Your task to perform on an android device: Search for Mexican restaurants on Maps Image 0: 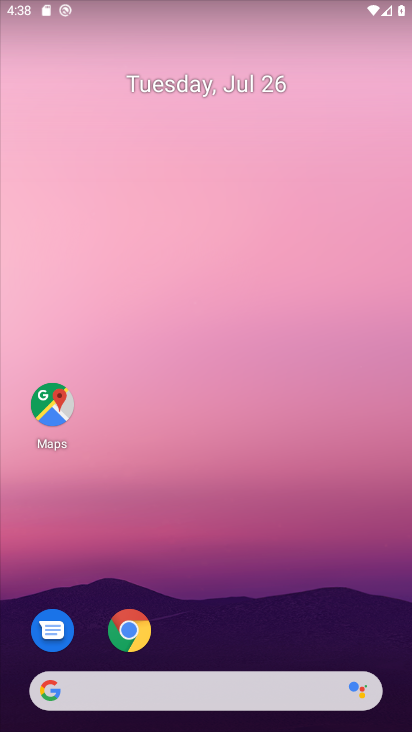
Step 0: click (54, 401)
Your task to perform on an android device: Search for Mexican restaurants on Maps Image 1: 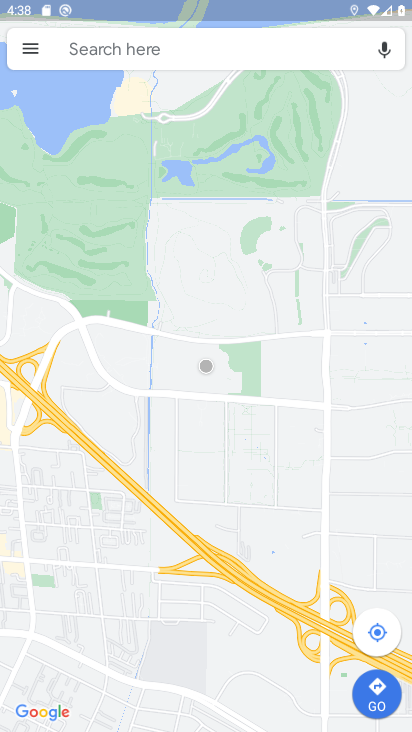
Step 1: click (131, 49)
Your task to perform on an android device: Search for Mexican restaurants on Maps Image 2: 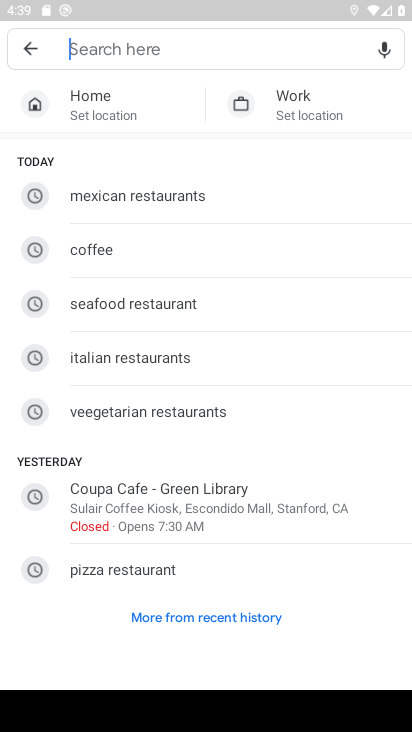
Step 2: click (198, 192)
Your task to perform on an android device: Search for Mexican restaurants on Maps Image 3: 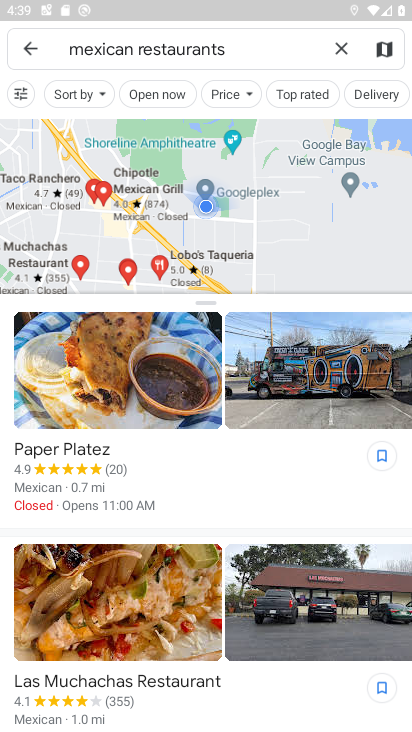
Step 3: task complete